Your task to perform on an android device: Go to Yahoo.com Image 0: 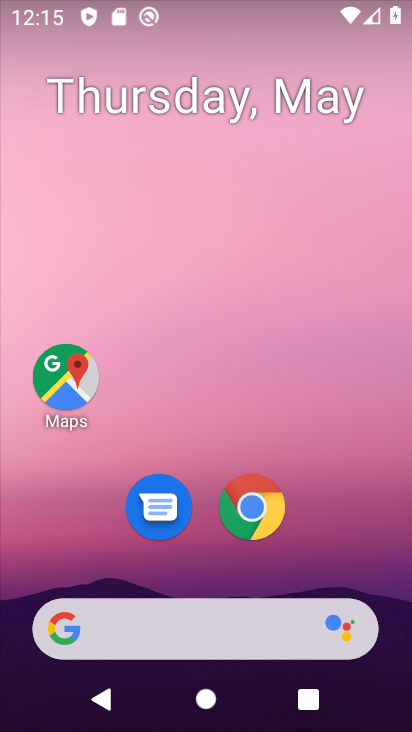
Step 0: click (266, 521)
Your task to perform on an android device: Go to Yahoo.com Image 1: 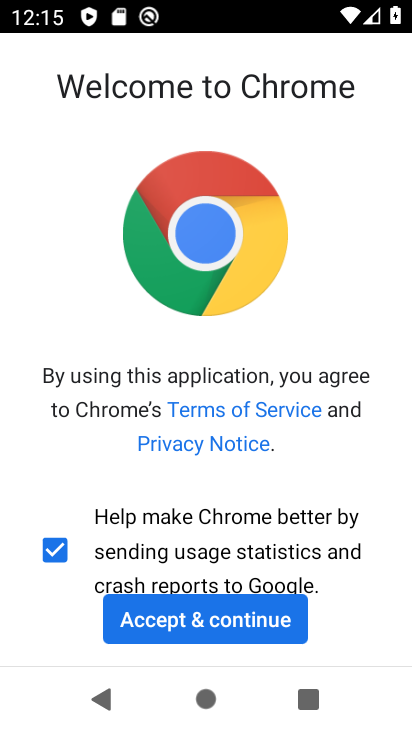
Step 1: click (257, 644)
Your task to perform on an android device: Go to Yahoo.com Image 2: 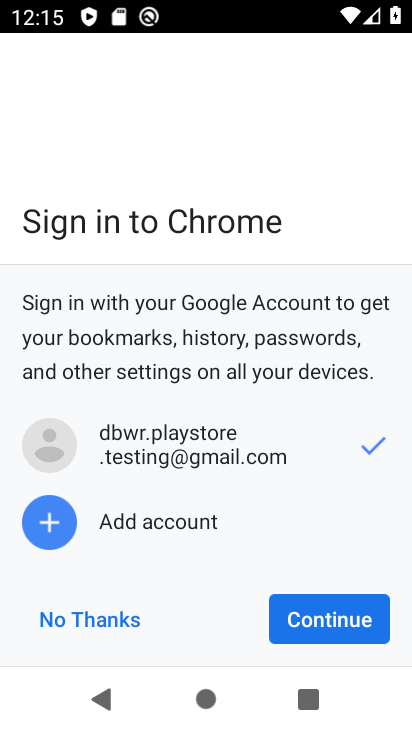
Step 2: click (316, 612)
Your task to perform on an android device: Go to Yahoo.com Image 3: 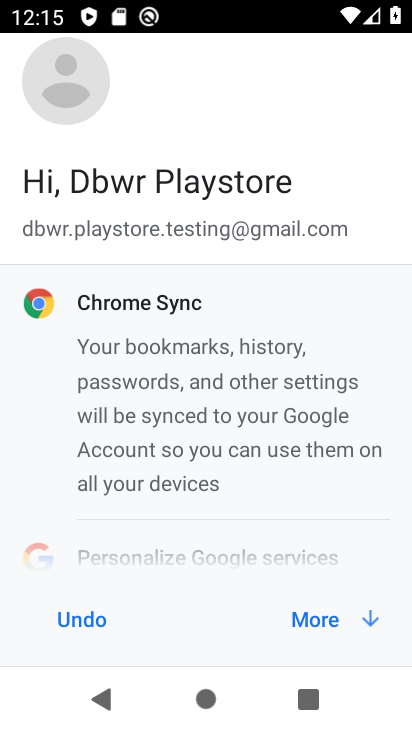
Step 3: click (344, 626)
Your task to perform on an android device: Go to Yahoo.com Image 4: 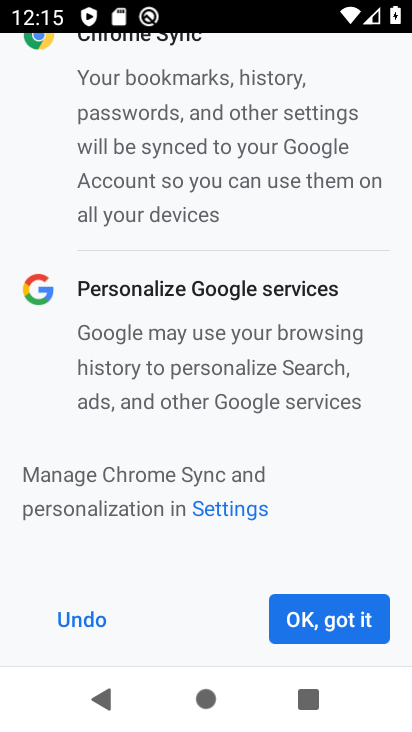
Step 4: click (348, 626)
Your task to perform on an android device: Go to Yahoo.com Image 5: 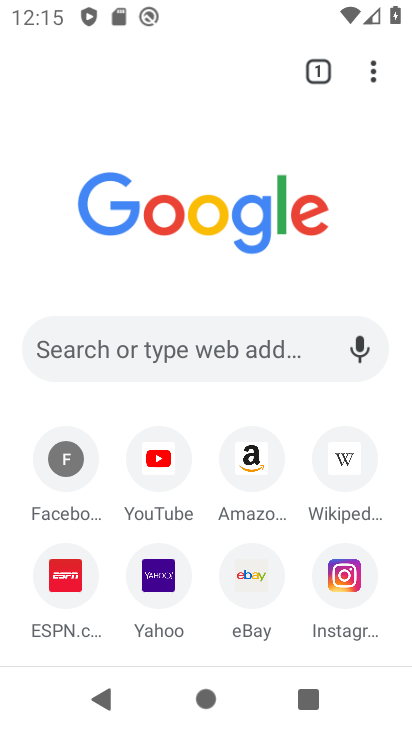
Step 5: click (179, 575)
Your task to perform on an android device: Go to Yahoo.com Image 6: 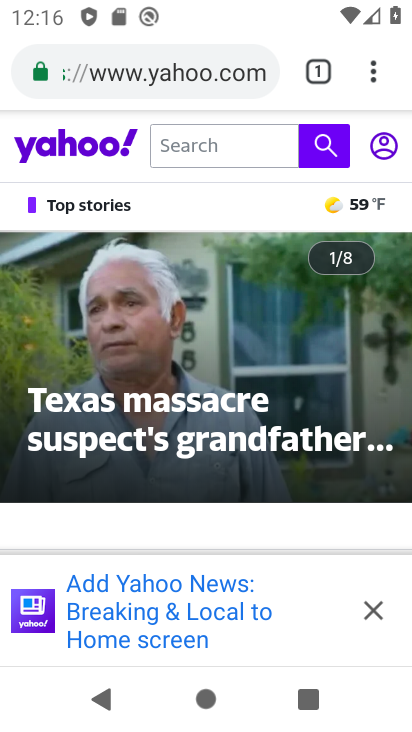
Step 6: task complete